Your task to perform on an android device: Open eBay Image 0: 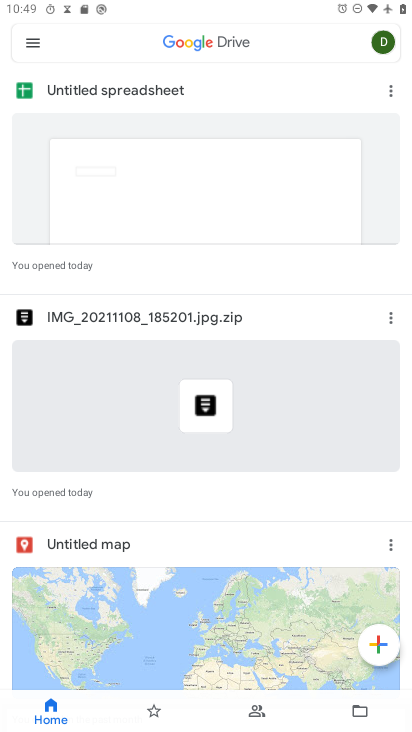
Step 0: press home button
Your task to perform on an android device: Open eBay Image 1: 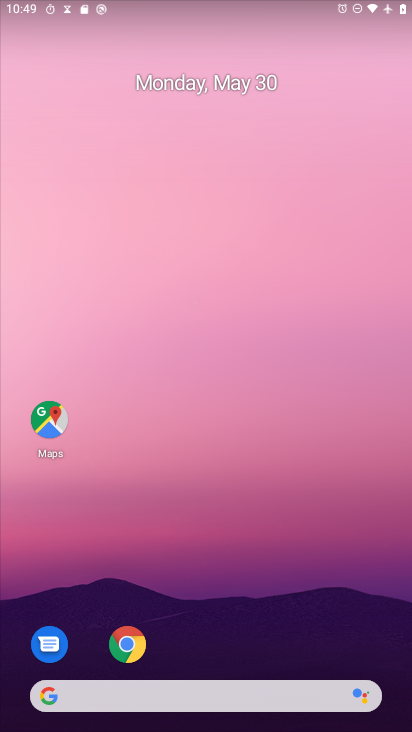
Step 1: drag from (196, 662) to (211, 72)
Your task to perform on an android device: Open eBay Image 2: 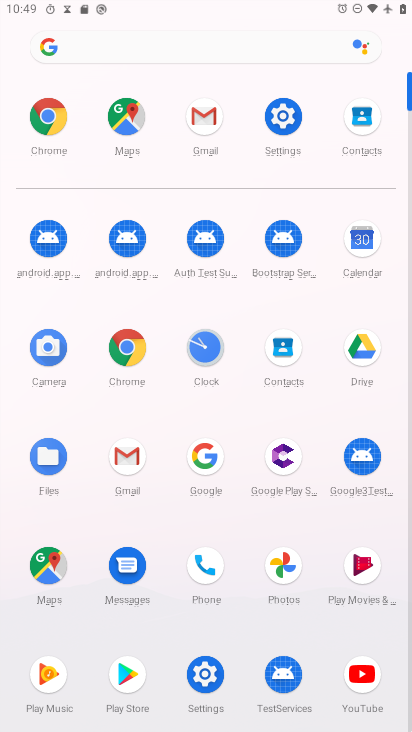
Step 2: click (210, 459)
Your task to perform on an android device: Open eBay Image 3: 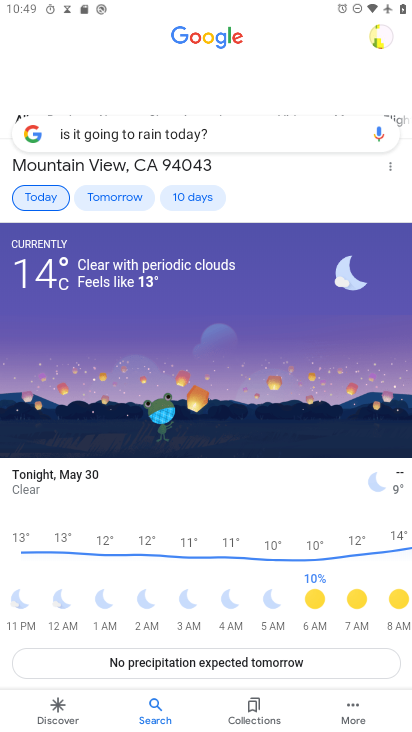
Step 3: click (247, 136)
Your task to perform on an android device: Open eBay Image 4: 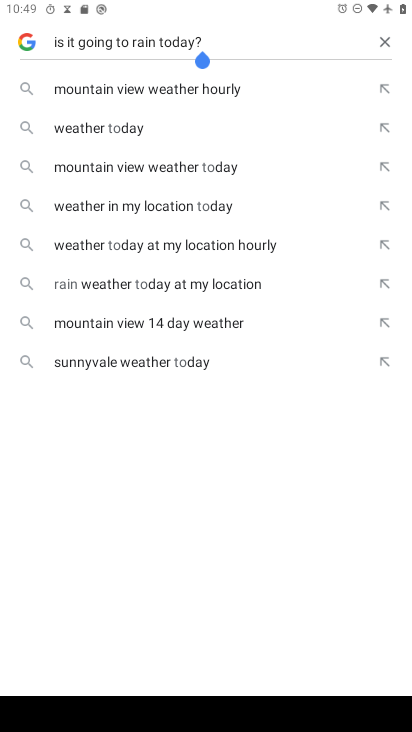
Step 4: click (372, 43)
Your task to perform on an android device: Open eBay Image 5: 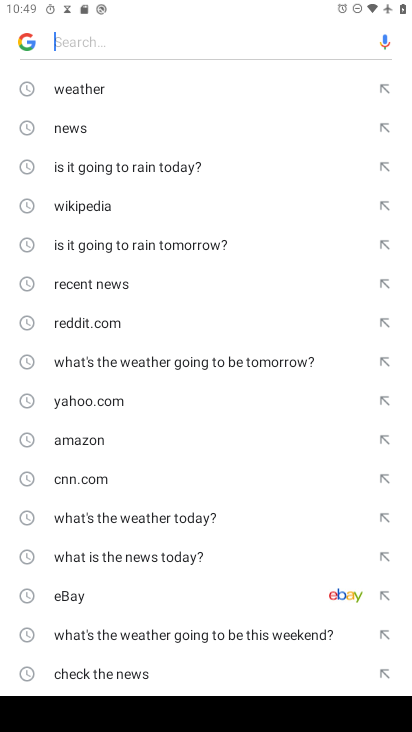
Step 5: click (91, 594)
Your task to perform on an android device: Open eBay Image 6: 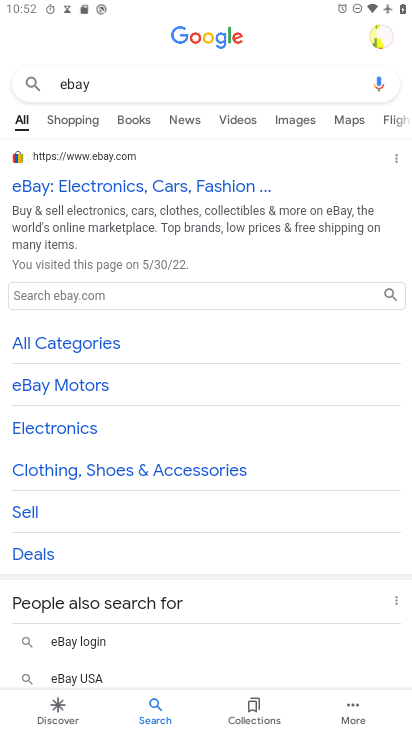
Step 6: task complete